Your task to perform on an android device: See recent photos Image 0: 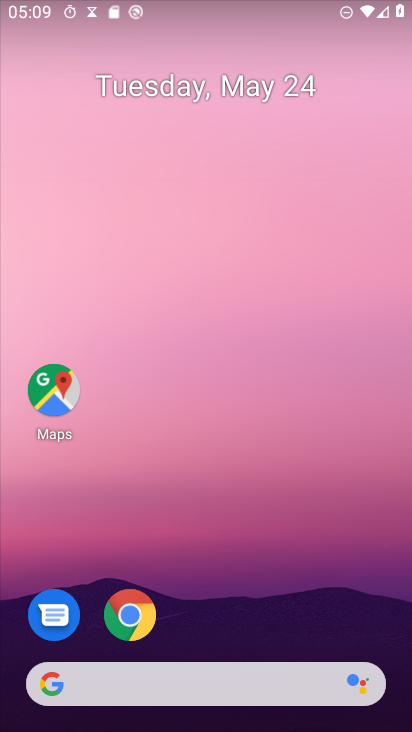
Step 0: drag from (226, 613) to (301, 42)
Your task to perform on an android device: See recent photos Image 1: 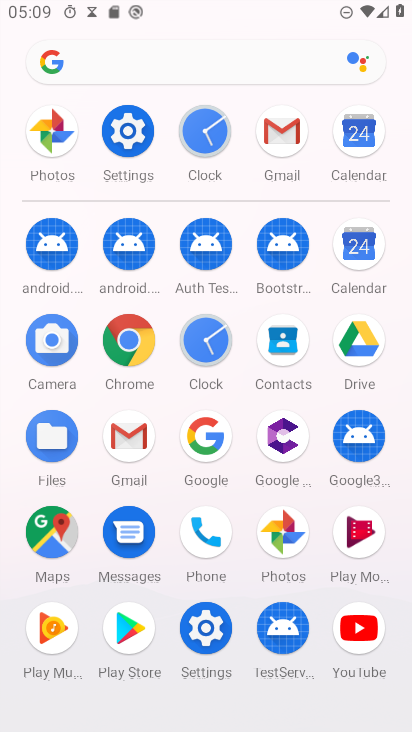
Step 1: click (292, 537)
Your task to perform on an android device: See recent photos Image 2: 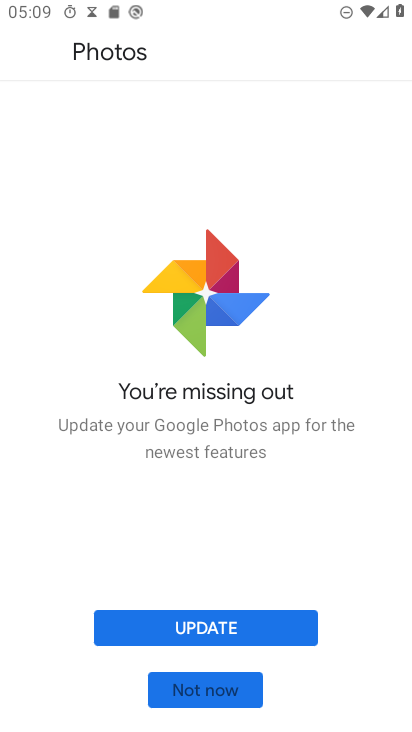
Step 2: click (207, 681)
Your task to perform on an android device: See recent photos Image 3: 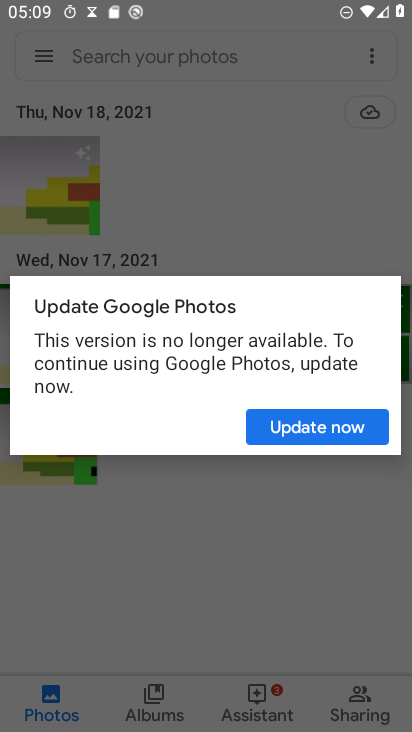
Step 3: click (308, 424)
Your task to perform on an android device: See recent photos Image 4: 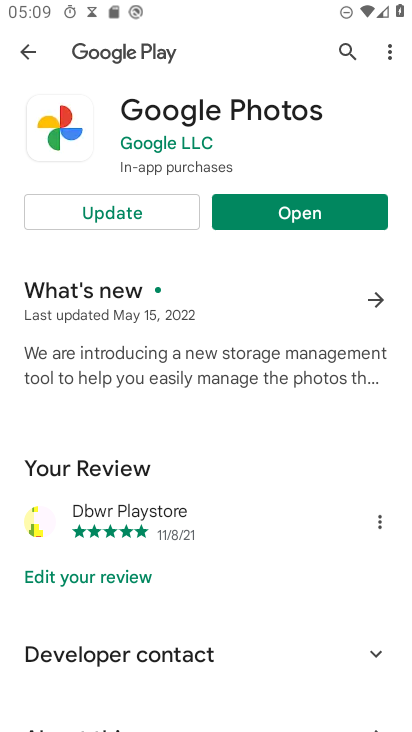
Step 4: click (260, 208)
Your task to perform on an android device: See recent photos Image 5: 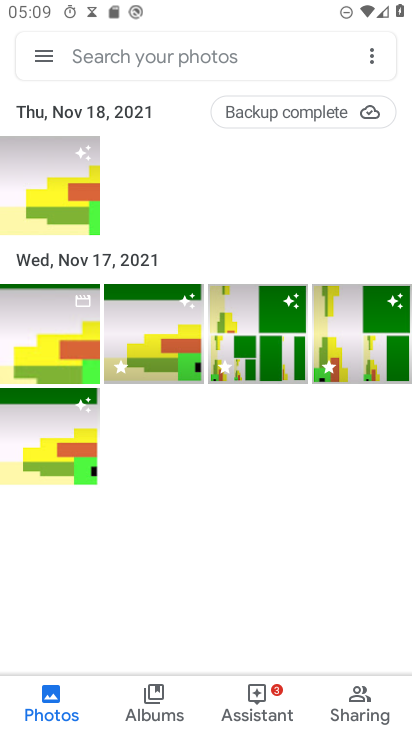
Step 5: click (49, 723)
Your task to perform on an android device: See recent photos Image 6: 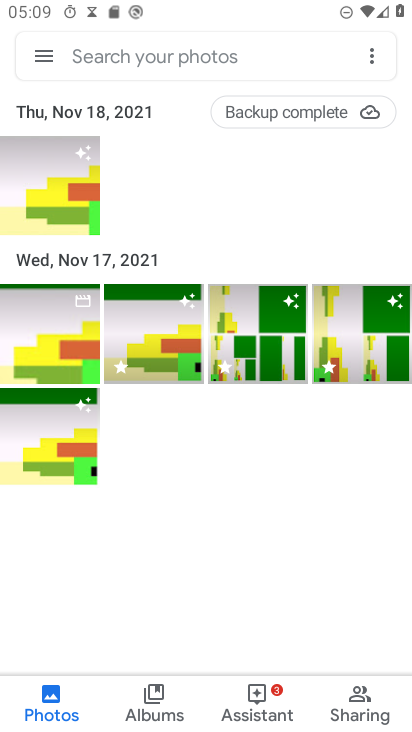
Step 6: task complete